Your task to perform on an android device: Open settings on Google Maps Image 0: 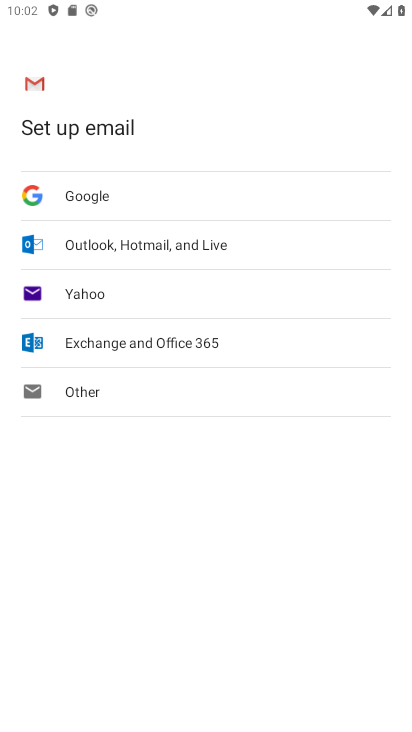
Step 0: press home button
Your task to perform on an android device: Open settings on Google Maps Image 1: 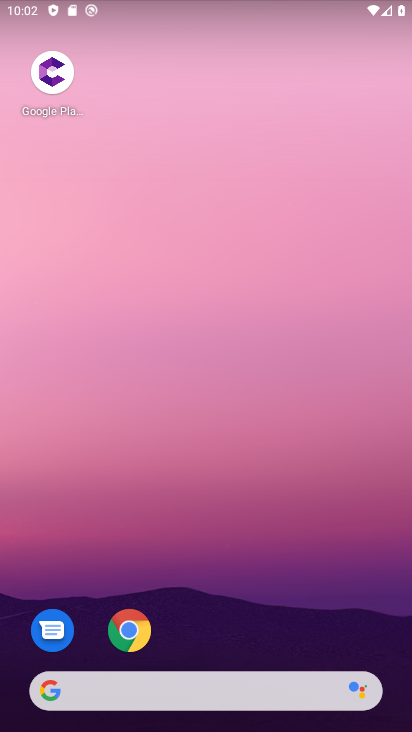
Step 1: drag from (313, 652) to (293, 2)
Your task to perform on an android device: Open settings on Google Maps Image 2: 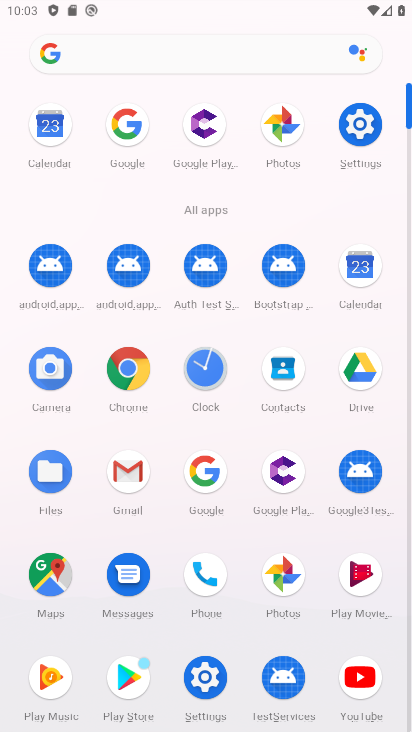
Step 2: click (51, 576)
Your task to perform on an android device: Open settings on Google Maps Image 3: 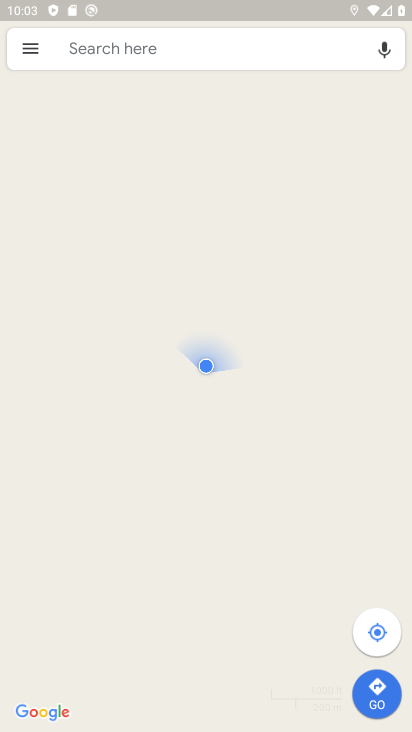
Step 3: click (35, 52)
Your task to perform on an android device: Open settings on Google Maps Image 4: 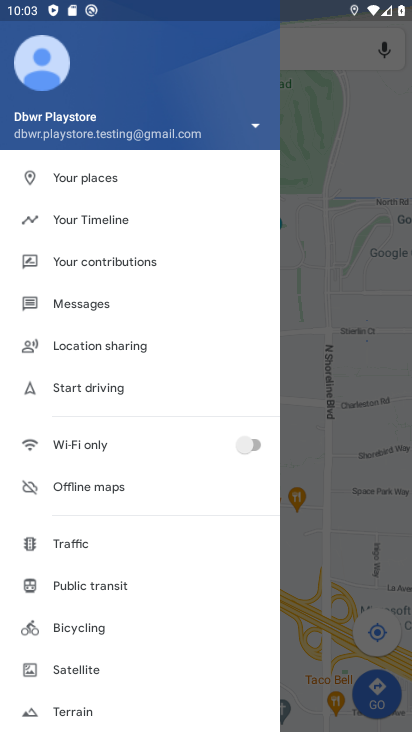
Step 4: drag from (143, 682) to (145, 410)
Your task to perform on an android device: Open settings on Google Maps Image 5: 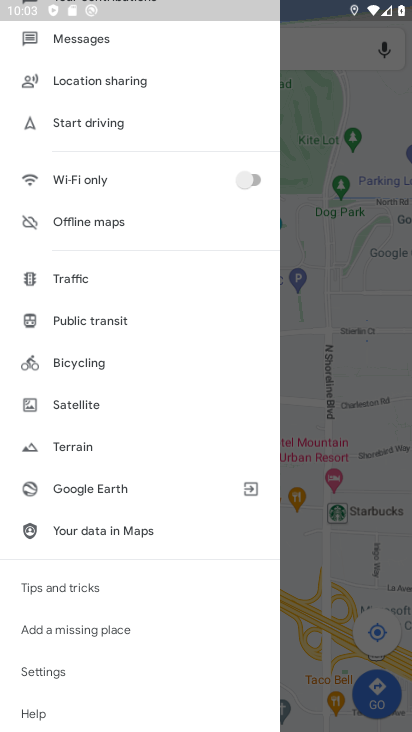
Step 5: click (47, 672)
Your task to perform on an android device: Open settings on Google Maps Image 6: 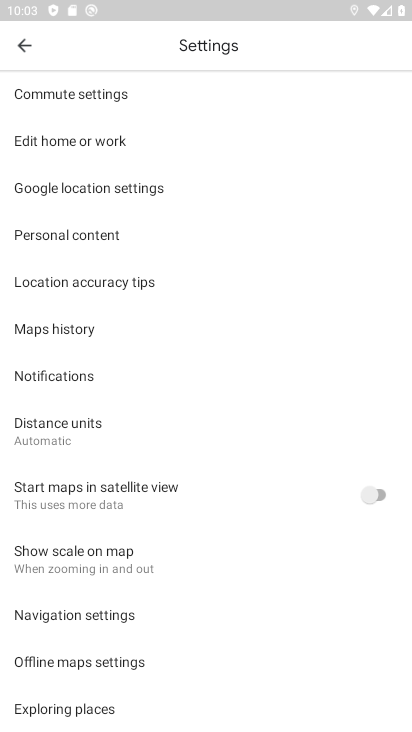
Step 6: task complete